Your task to perform on an android device: Search for Italian restaurants on Maps Image 0: 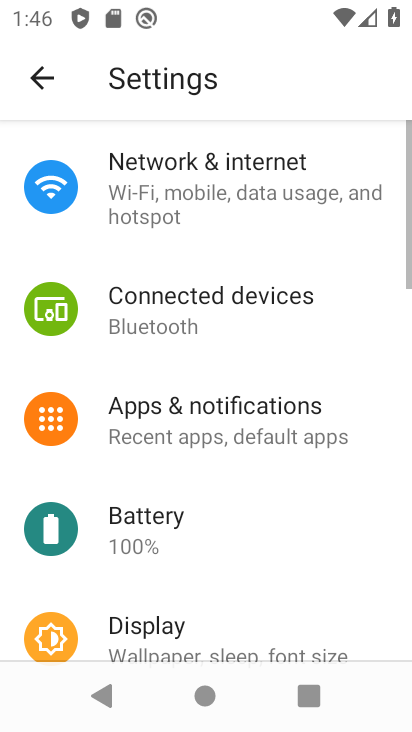
Step 0: press home button
Your task to perform on an android device: Search for Italian restaurants on Maps Image 1: 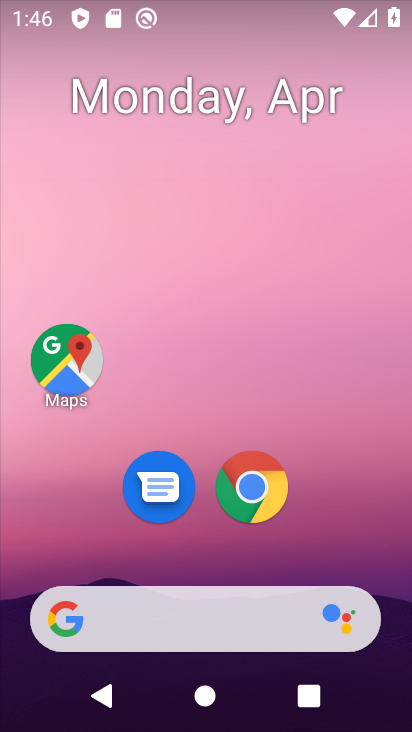
Step 1: drag from (285, 666) to (235, 214)
Your task to perform on an android device: Search for Italian restaurants on Maps Image 2: 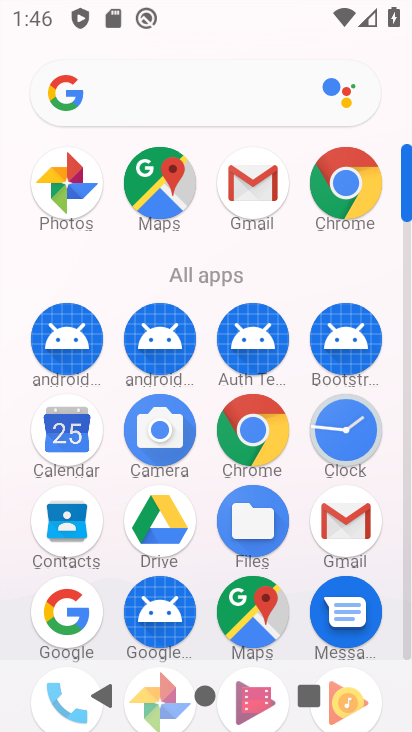
Step 2: click (152, 187)
Your task to perform on an android device: Search for Italian restaurants on Maps Image 3: 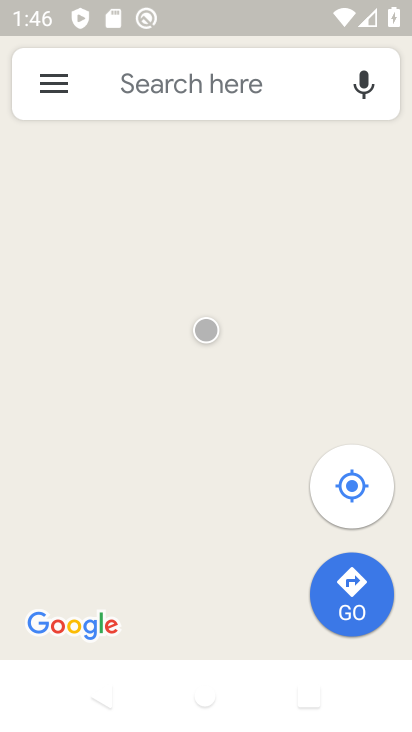
Step 3: click (149, 84)
Your task to perform on an android device: Search for Italian restaurants on Maps Image 4: 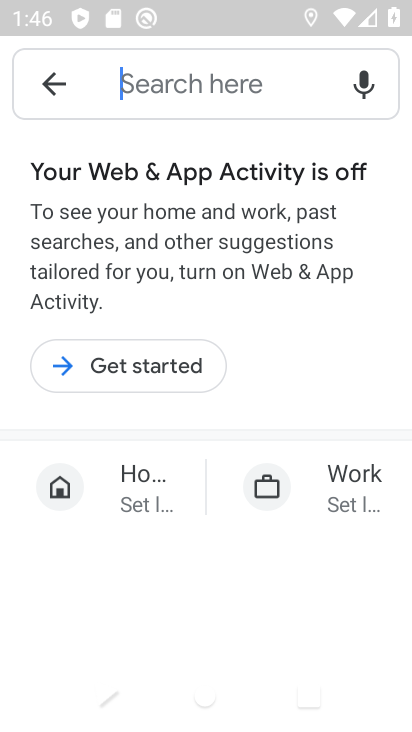
Step 4: click (149, 84)
Your task to perform on an android device: Search for Italian restaurants on Maps Image 5: 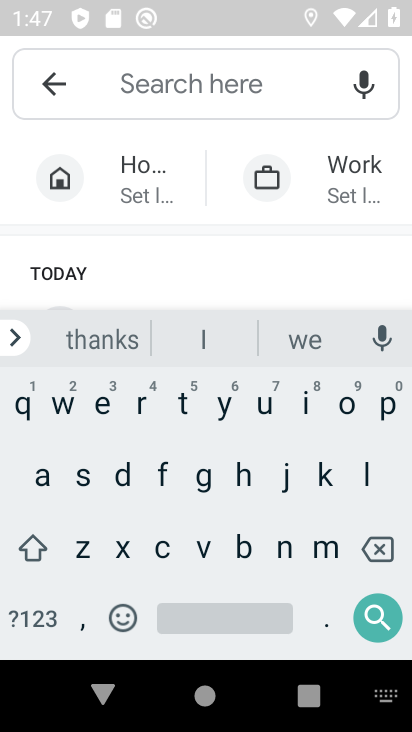
Step 5: click (303, 419)
Your task to perform on an android device: Search for Italian restaurants on Maps Image 6: 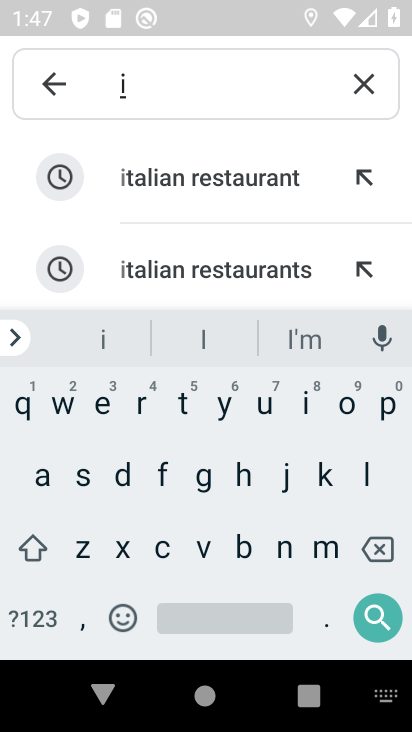
Step 6: click (226, 180)
Your task to perform on an android device: Search for Italian restaurants on Maps Image 7: 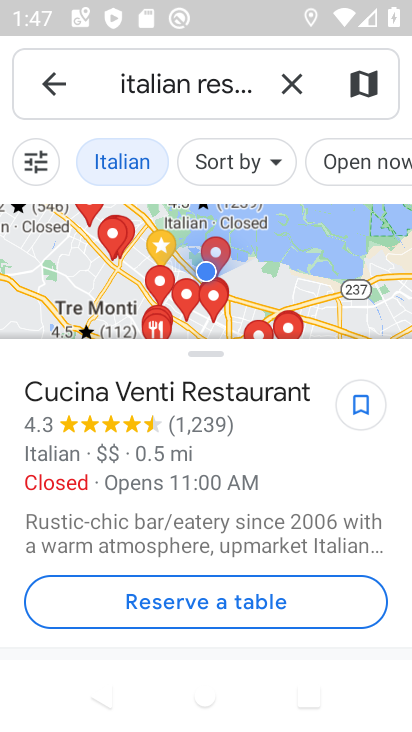
Step 7: click (128, 253)
Your task to perform on an android device: Search for Italian restaurants on Maps Image 8: 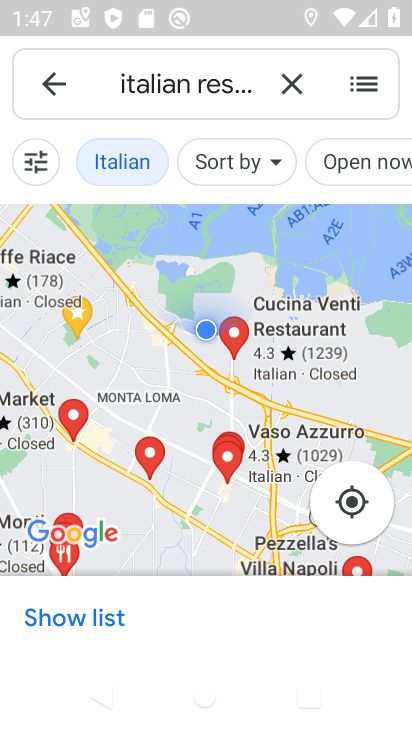
Step 8: task complete